Your task to perform on an android device: Play the last video I watched on Youtube Image 0: 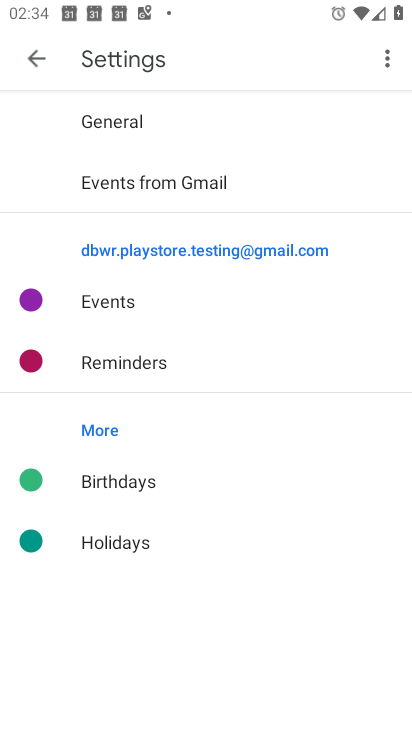
Step 0: press home button
Your task to perform on an android device: Play the last video I watched on Youtube Image 1: 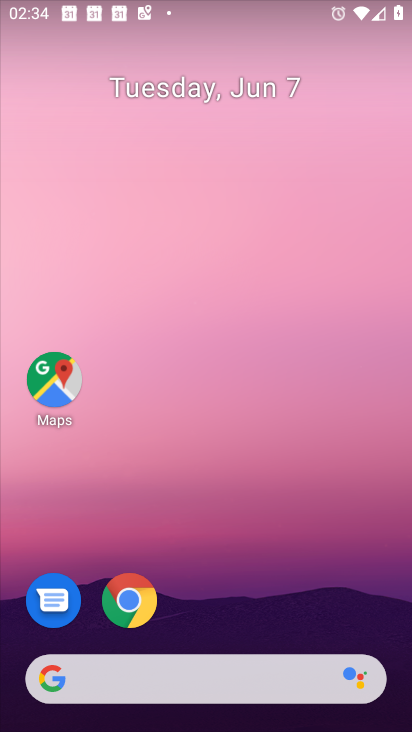
Step 1: drag from (222, 718) to (224, 246)
Your task to perform on an android device: Play the last video I watched on Youtube Image 2: 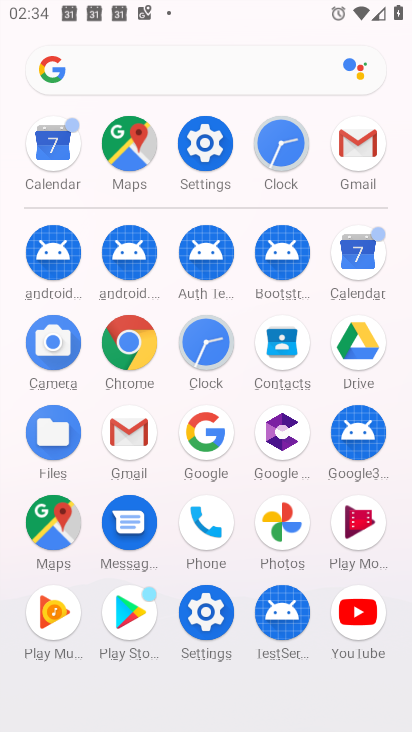
Step 2: click (373, 618)
Your task to perform on an android device: Play the last video I watched on Youtube Image 3: 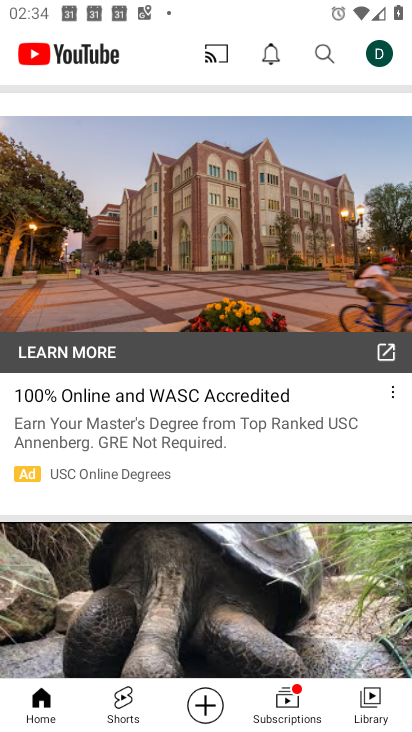
Step 3: click (364, 693)
Your task to perform on an android device: Play the last video I watched on Youtube Image 4: 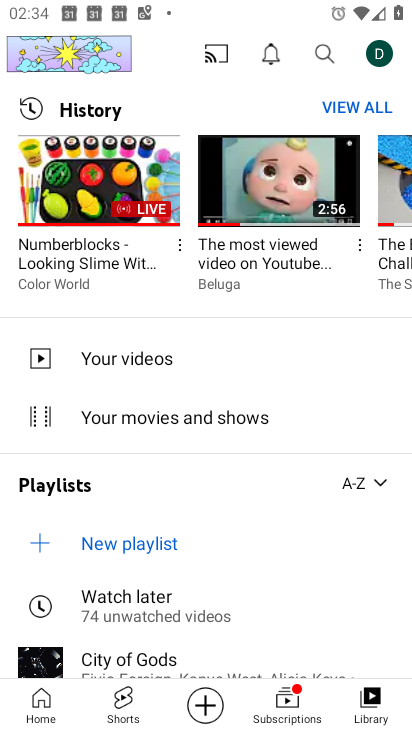
Step 4: click (112, 195)
Your task to perform on an android device: Play the last video I watched on Youtube Image 5: 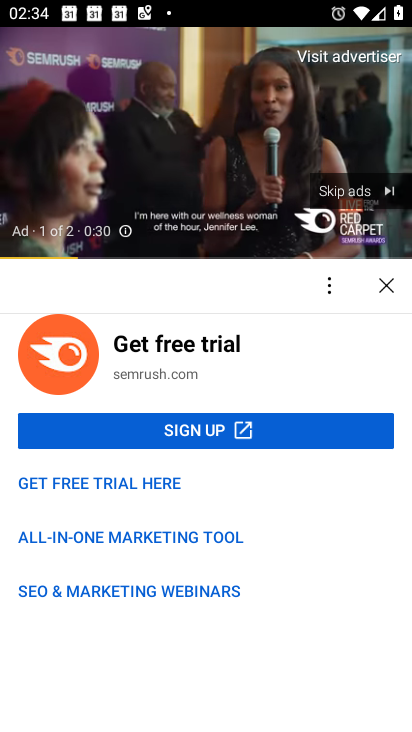
Step 5: click (363, 190)
Your task to perform on an android device: Play the last video I watched on Youtube Image 6: 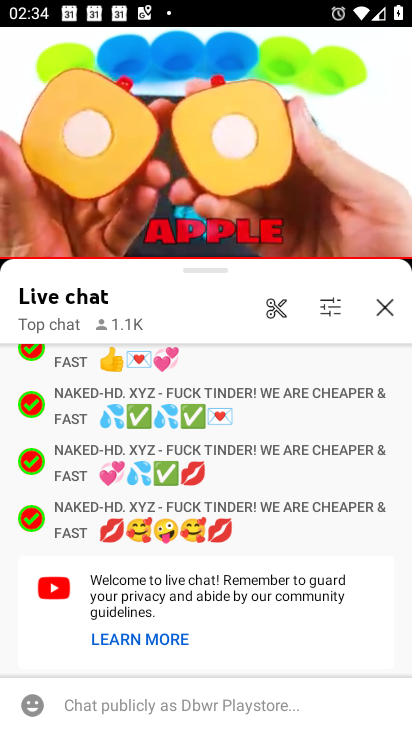
Step 6: task complete